Your task to perform on an android device: Add "razer nari" to the cart on target, then select checkout. Image 0: 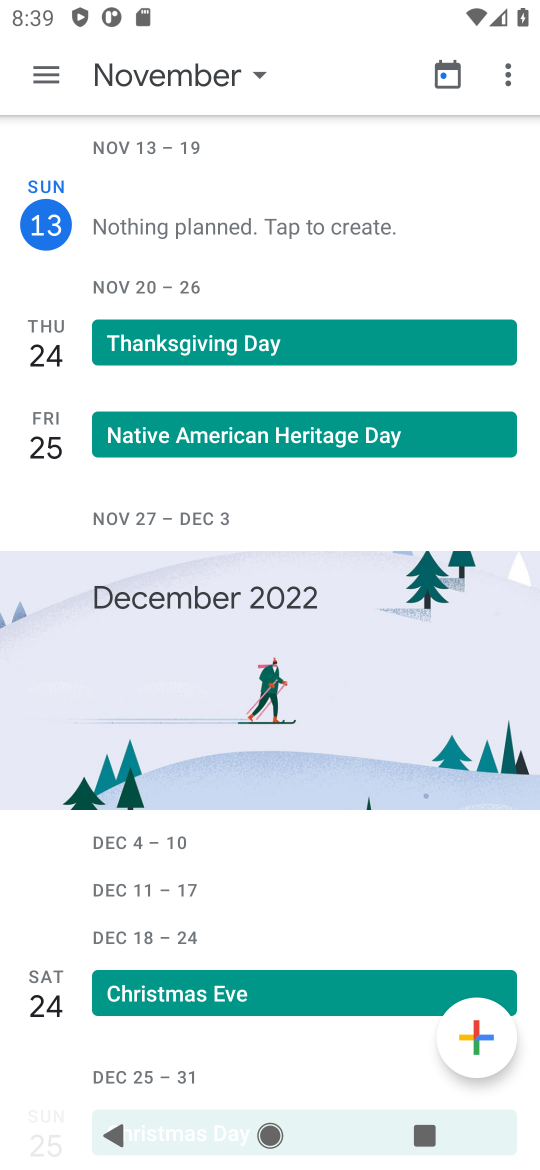
Step 0: press home button
Your task to perform on an android device: Add "razer nari" to the cart on target, then select checkout. Image 1: 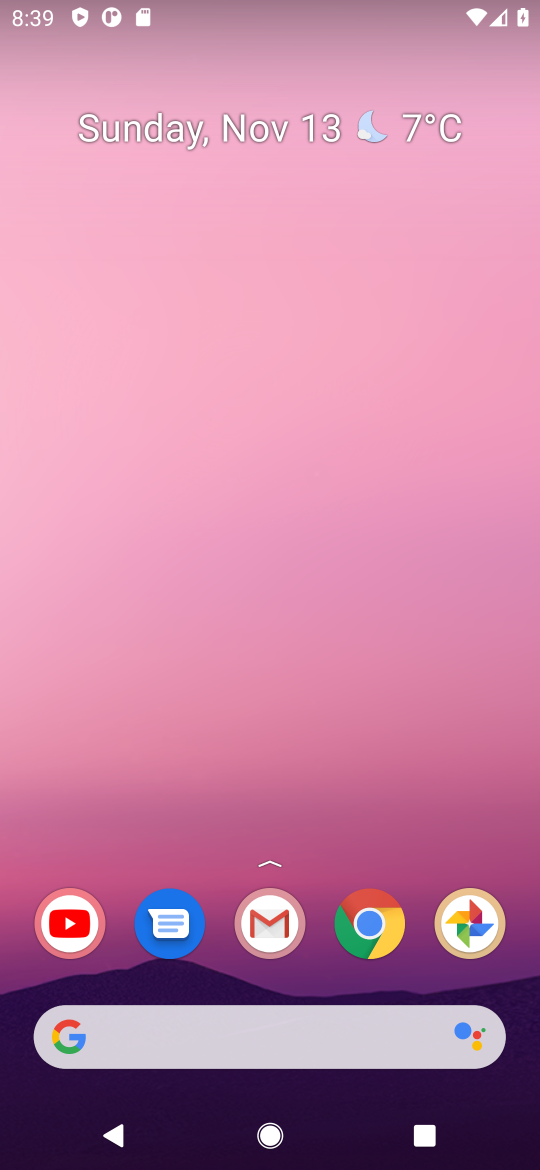
Step 1: click (377, 922)
Your task to perform on an android device: Add "razer nari" to the cart on target, then select checkout. Image 2: 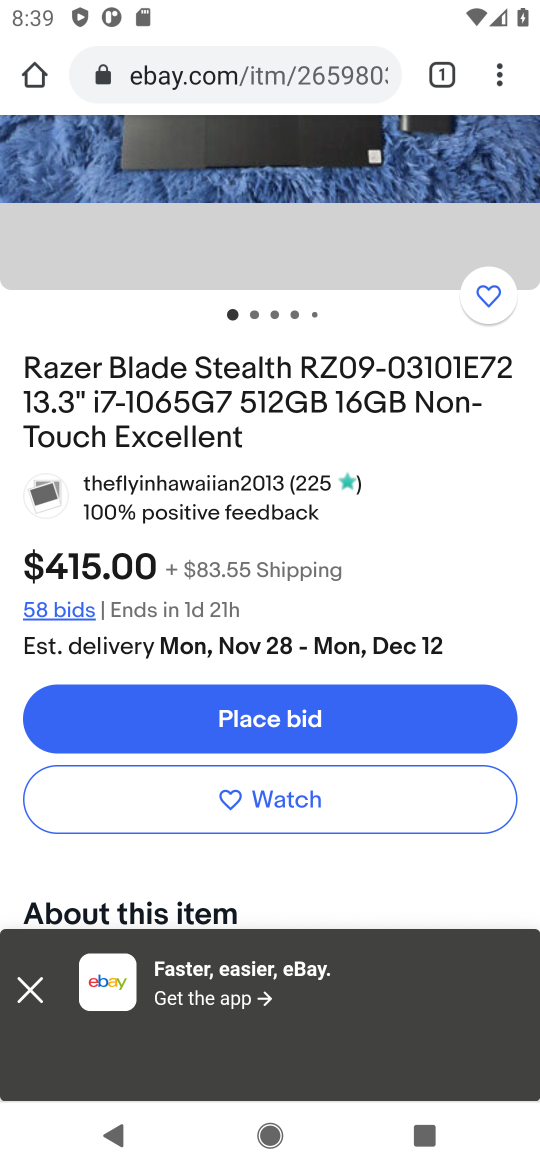
Step 2: click (174, 76)
Your task to perform on an android device: Add "razer nari" to the cart on target, then select checkout. Image 3: 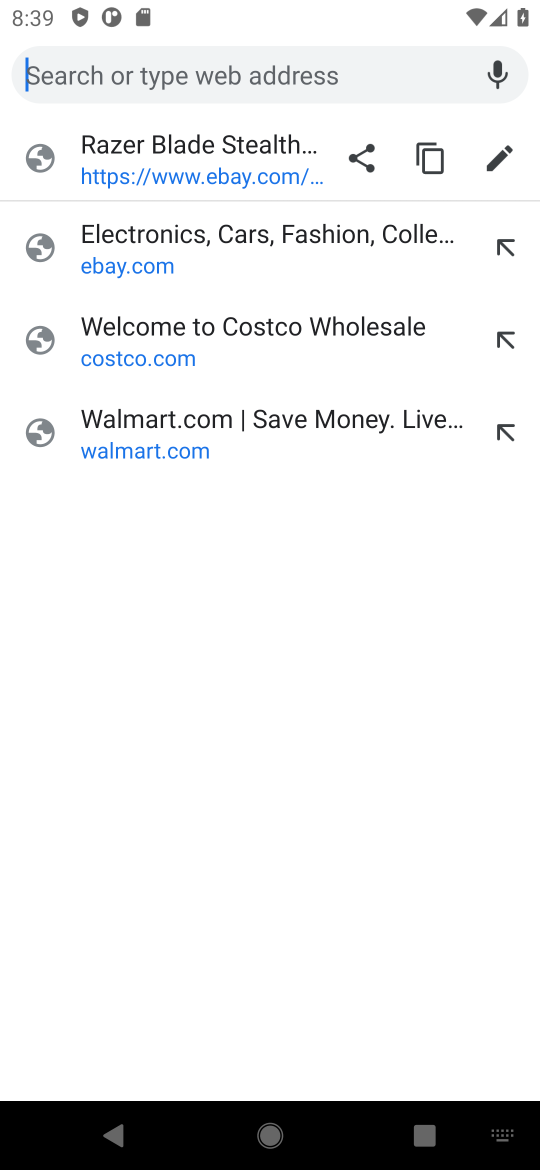
Step 3: type "target"
Your task to perform on an android device: Add "razer nari" to the cart on target, then select checkout. Image 4: 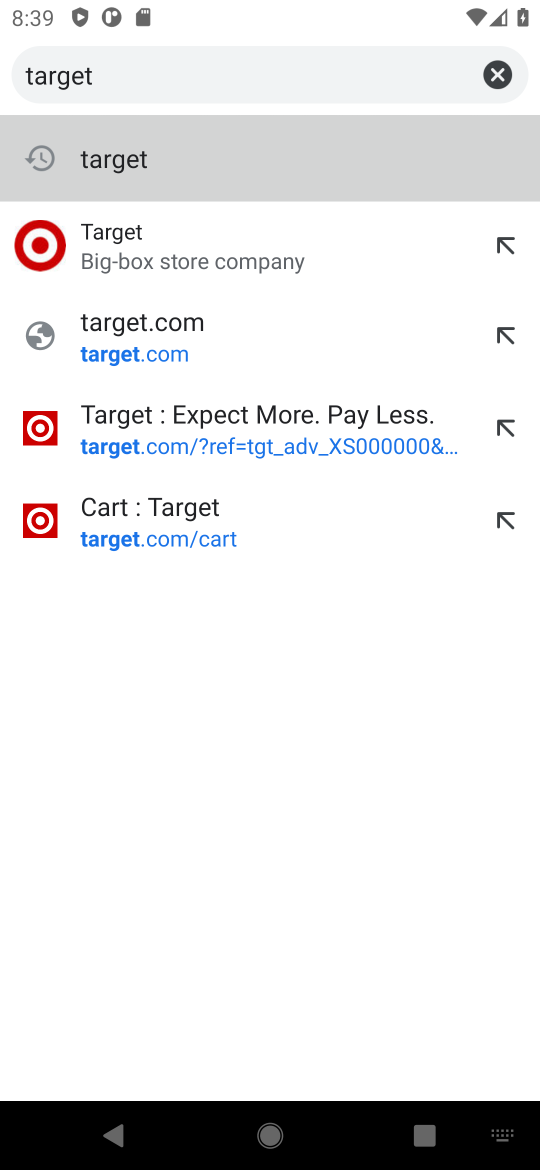
Step 4: click (202, 360)
Your task to perform on an android device: Add "razer nari" to the cart on target, then select checkout. Image 5: 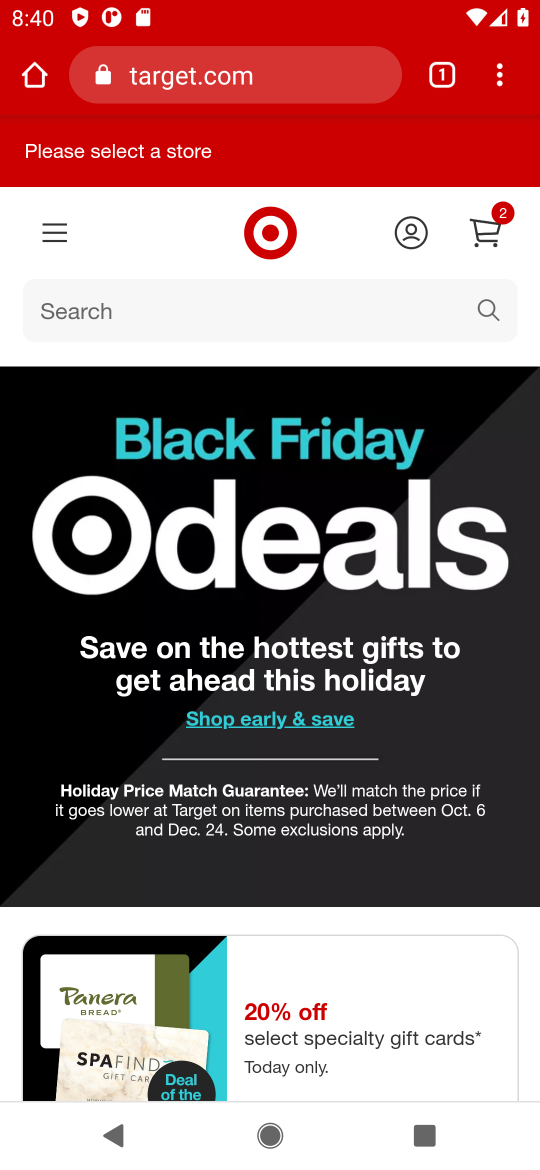
Step 5: click (196, 319)
Your task to perform on an android device: Add "razer nari" to the cart on target, then select checkout. Image 6: 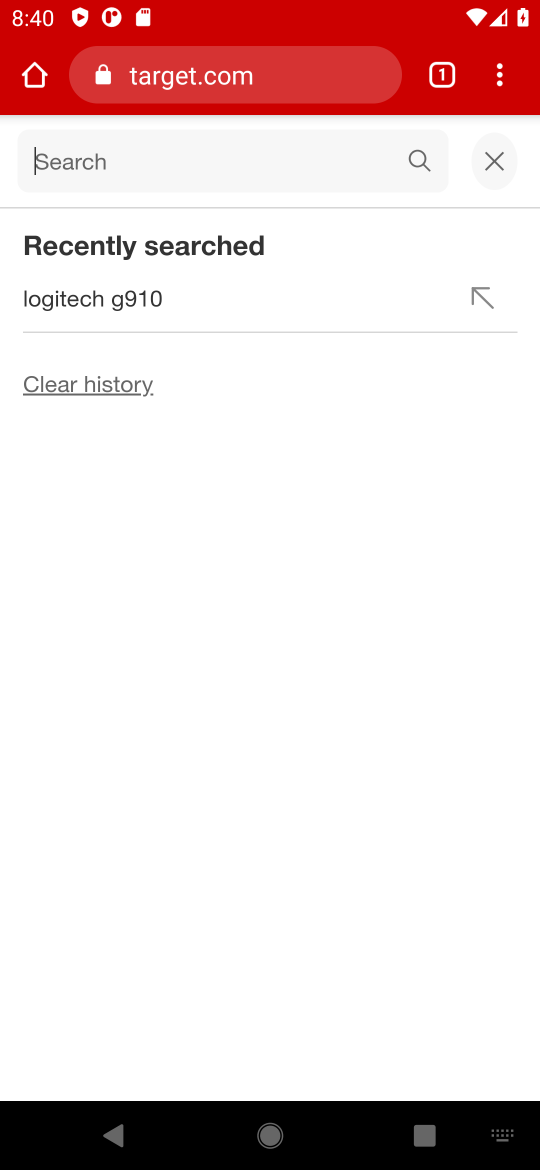
Step 6: type "razer nari"
Your task to perform on an android device: Add "razer nari" to the cart on target, then select checkout. Image 7: 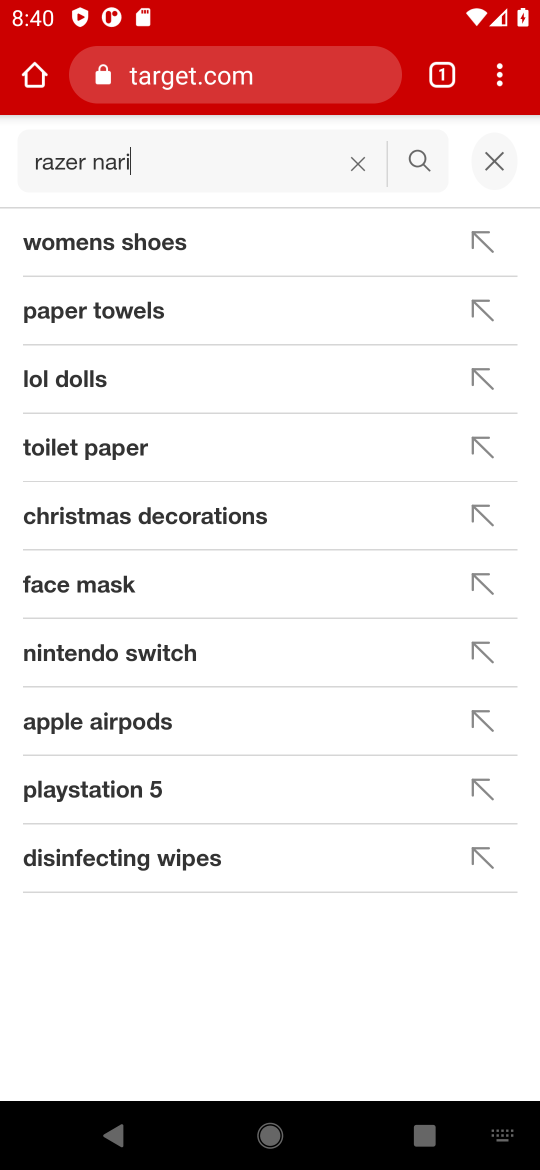
Step 7: press enter
Your task to perform on an android device: Add "razer nari" to the cart on target, then select checkout. Image 8: 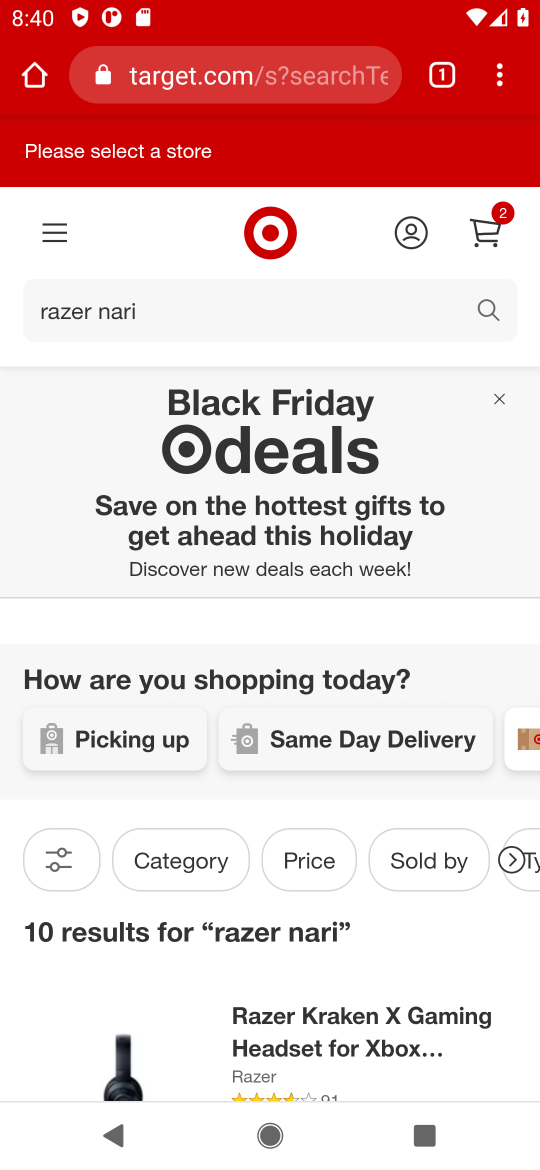
Step 8: drag from (379, 845) to (399, 441)
Your task to perform on an android device: Add "razer nari" to the cart on target, then select checkout. Image 9: 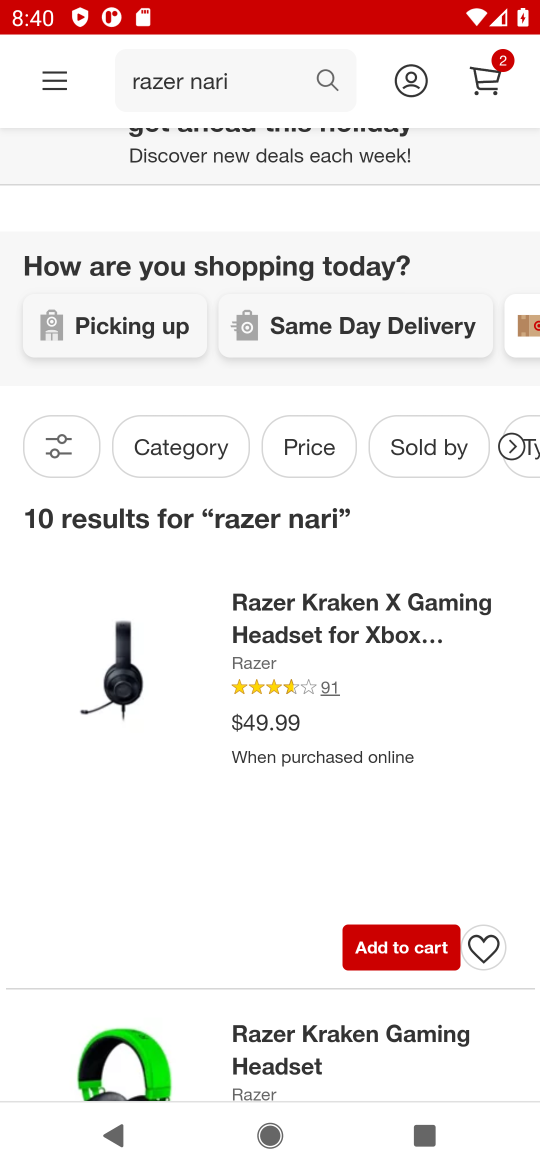
Step 9: click (407, 951)
Your task to perform on an android device: Add "razer nari" to the cart on target, then select checkout. Image 10: 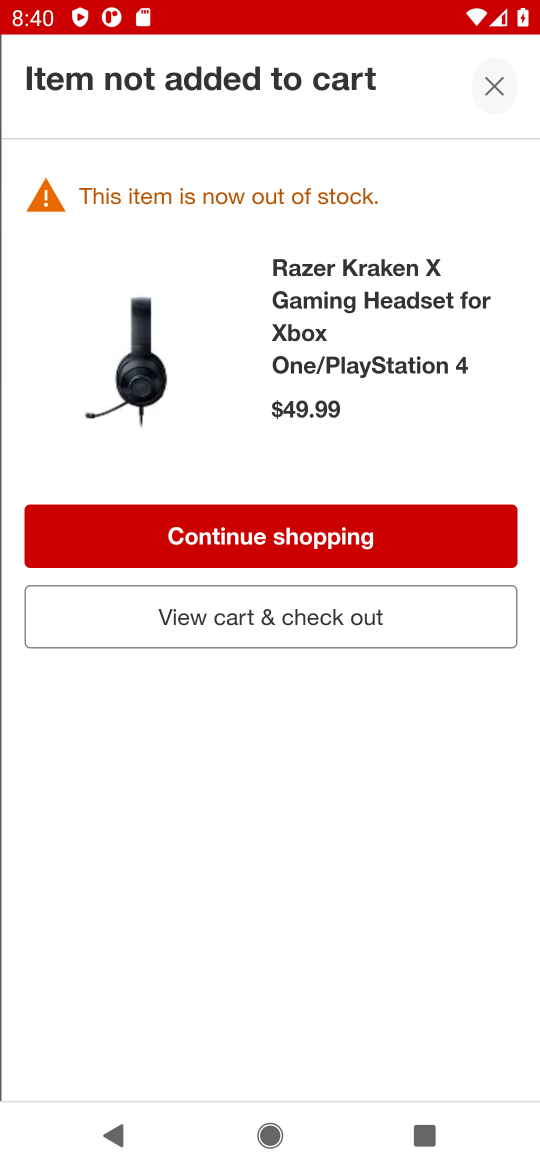
Step 10: click (261, 623)
Your task to perform on an android device: Add "razer nari" to the cart on target, then select checkout. Image 11: 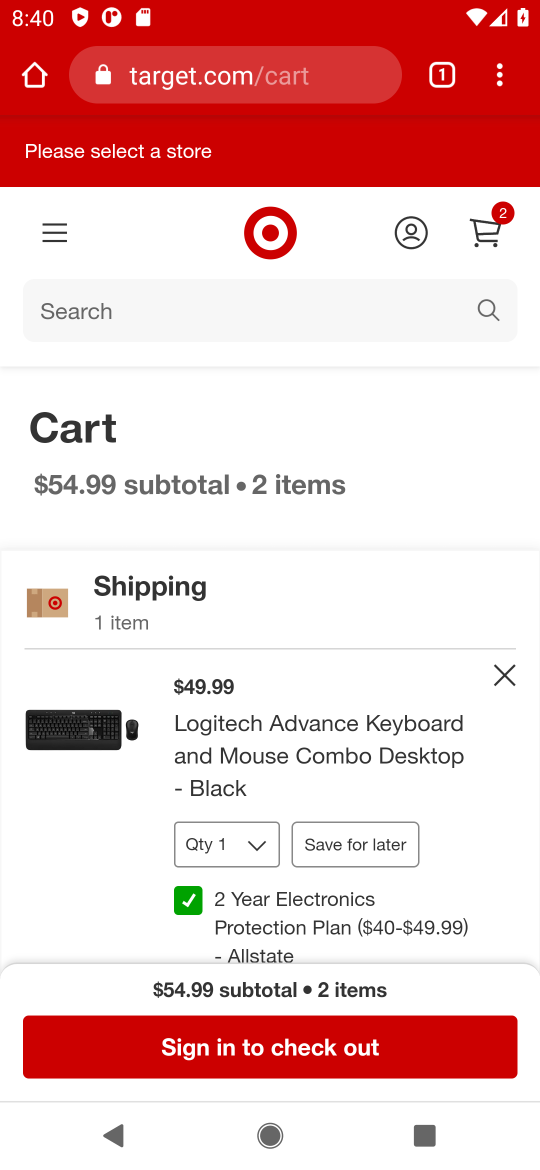
Step 11: click (319, 1026)
Your task to perform on an android device: Add "razer nari" to the cart on target, then select checkout. Image 12: 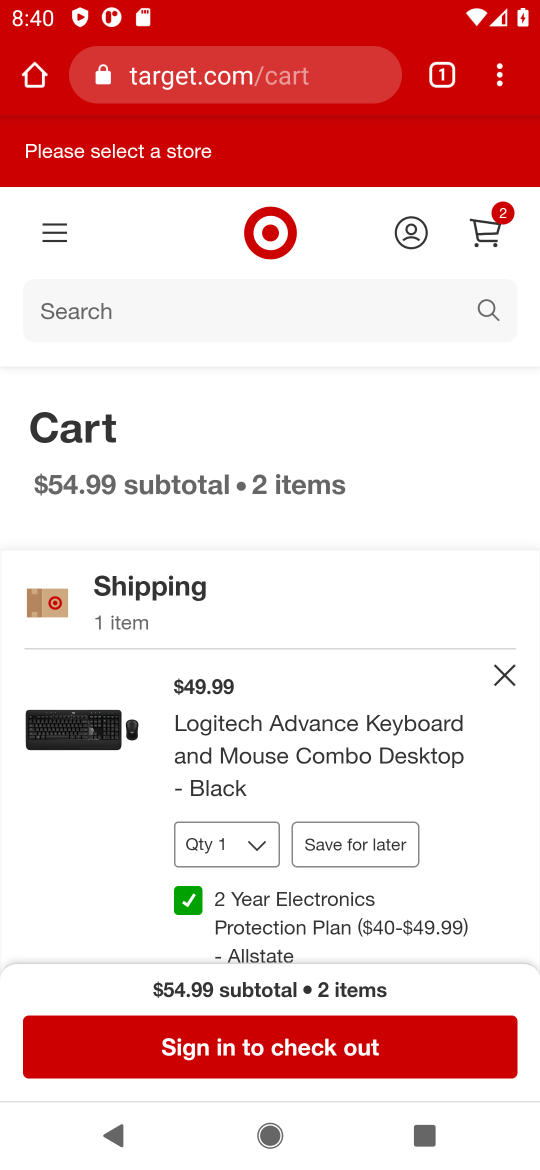
Step 12: click (314, 1040)
Your task to perform on an android device: Add "razer nari" to the cart on target, then select checkout. Image 13: 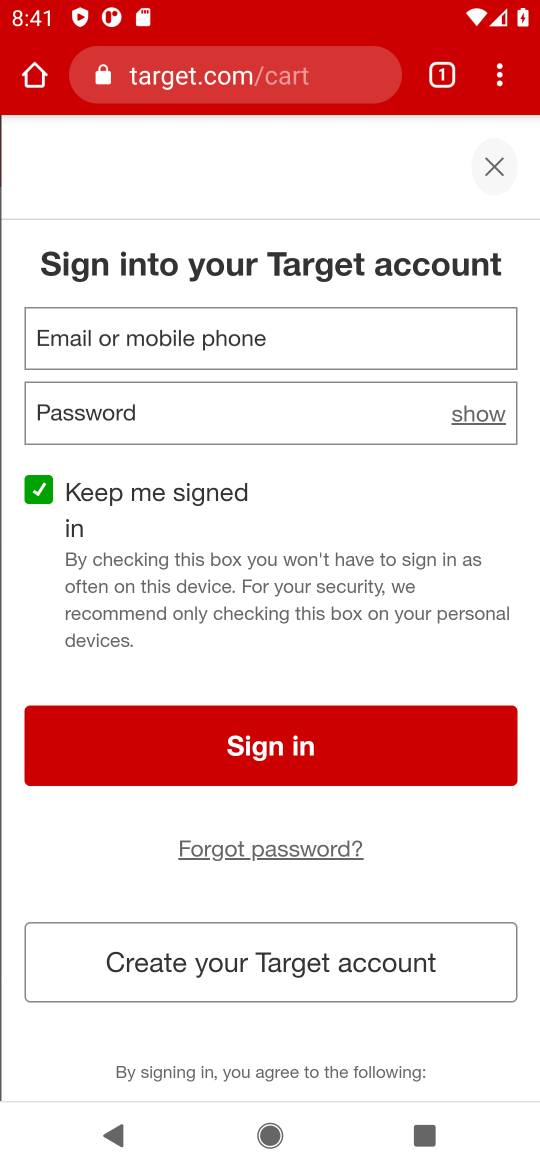
Step 13: task complete